Your task to perform on an android device: delete a single message in the gmail app Image 0: 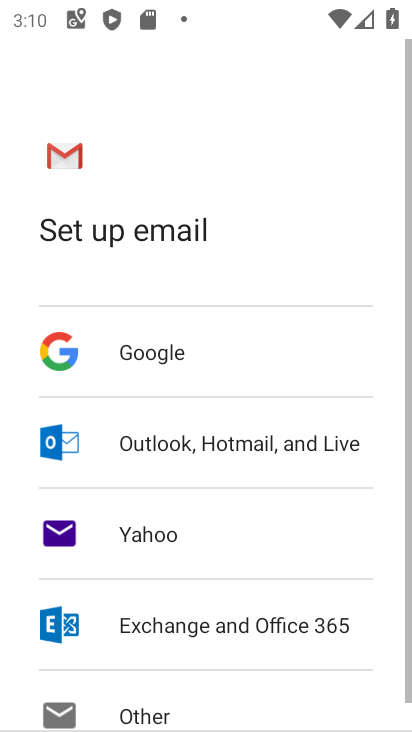
Step 0: press home button
Your task to perform on an android device: delete a single message in the gmail app Image 1: 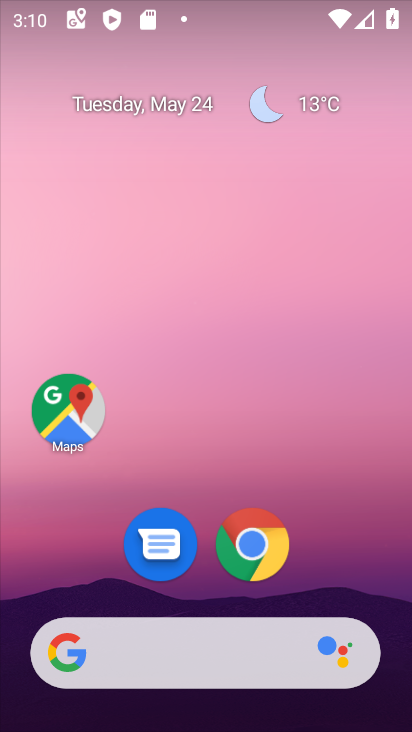
Step 1: drag from (384, 545) to (324, 1)
Your task to perform on an android device: delete a single message in the gmail app Image 2: 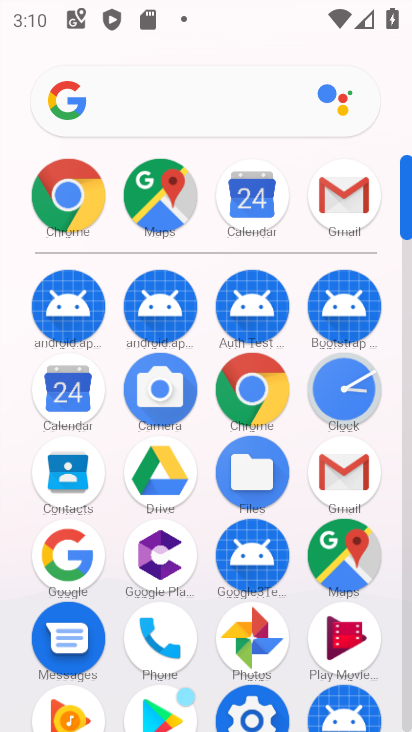
Step 2: click (353, 194)
Your task to perform on an android device: delete a single message in the gmail app Image 3: 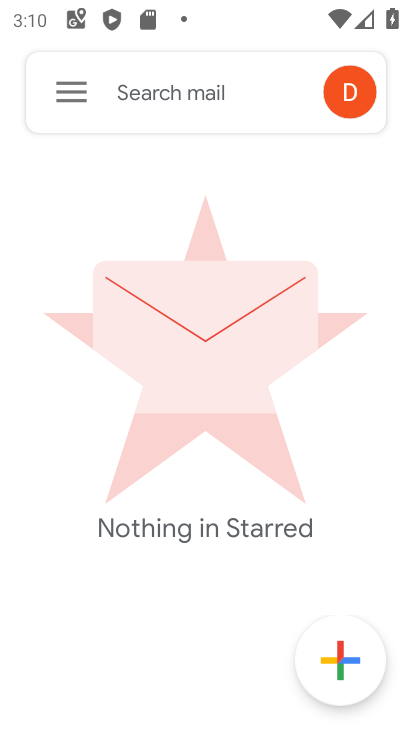
Step 3: click (62, 99)
Your task to perform on an android device: delete a single message in the gmail app Image 4: 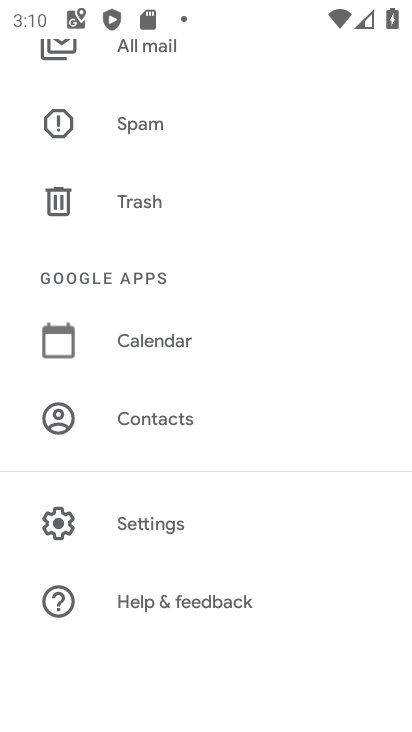
Step 4: drag from (160, 163) to (212, 504)
Your task to perform on an android device: delete a single message in the gmail app Image 5: 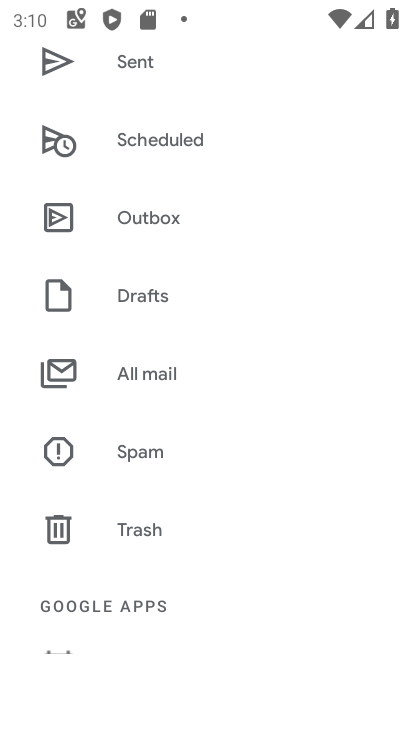
Step 5: drag from (107, 360) to (180, 698)
Your task to perform on an android device: delete a single message in the gmail app Image 6: 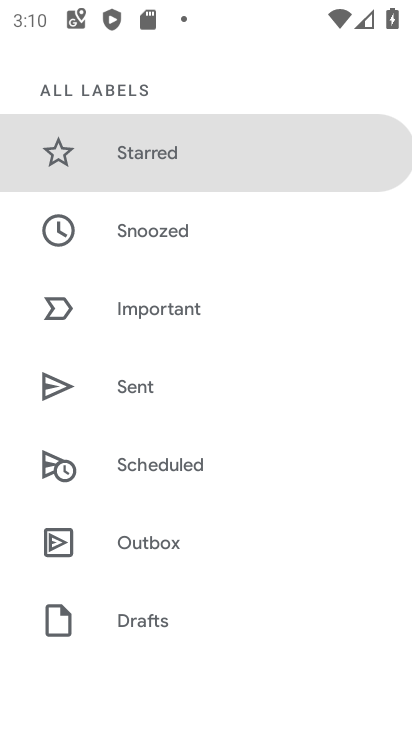
Step 6: drag from (195, 399) to (179, 726)
Your task to perform on an android device: delete a single message in the gmail app Image 7: 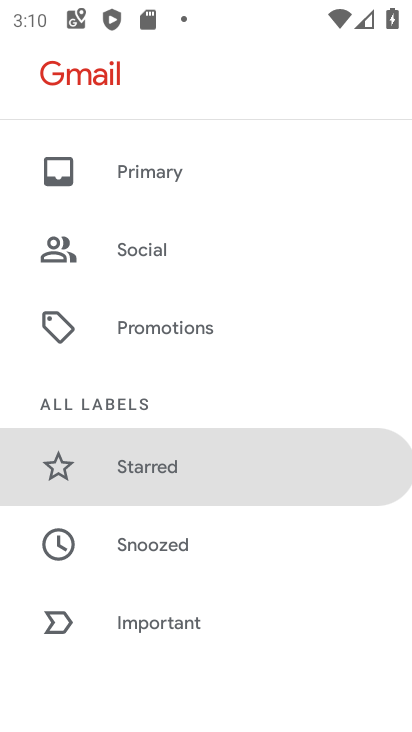
Step 7: drag from (183, 347) to (170, 680)
Your task to perform on an android device: delete a single message in the gmail app Image 8: 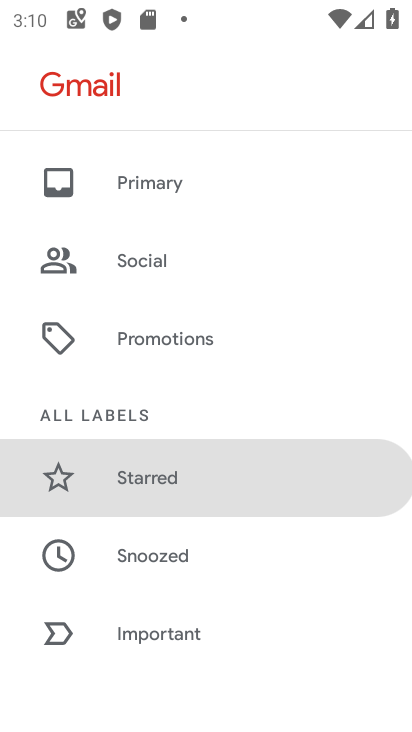
Step 8: drag from (169, 597) to (156, 255)
Your task to perform on an android device: delete a single message in the gmail app Image 9: 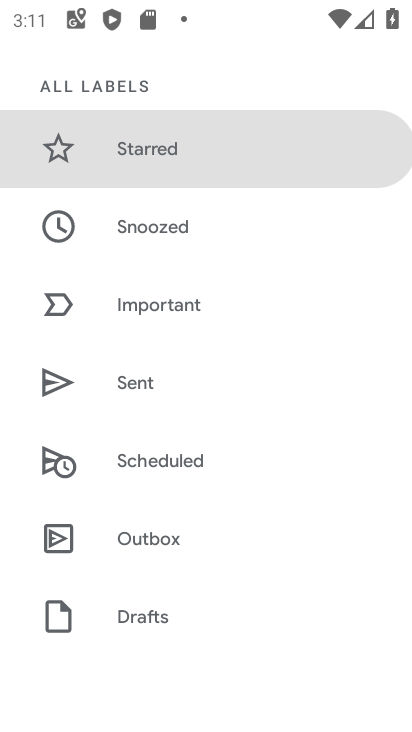
Step 9: drag from (221, 583) to (177, 159)
Your task to perform on an android device: delete a single message in the gmail app Image 10: 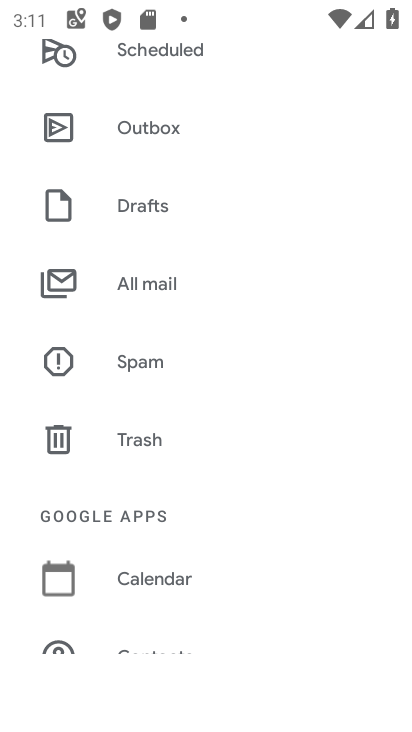
Step 10: drag from (204, 576) to (218, 135)
Your task to perform on an android device: delete a single message in the gmail app Image 11: 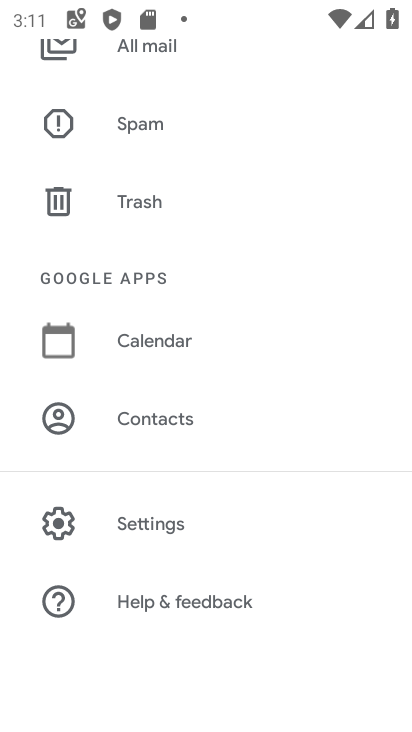
Step 11: drag from (281, 271) to (261, 589)
Your task to perform on an android device: delete a single message in the gmail app Image 12: 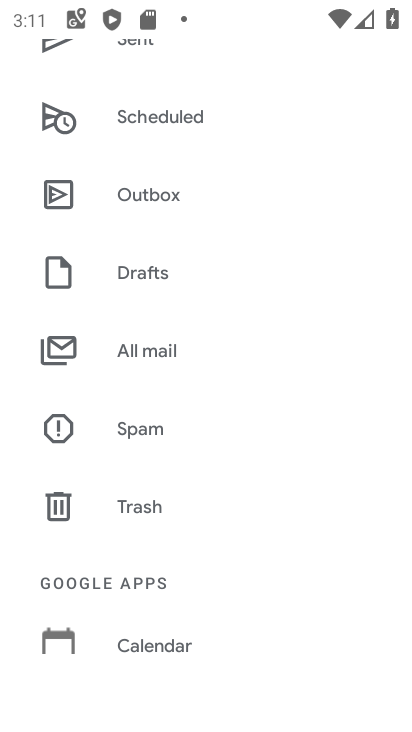
Step 12: drag from (227, 152) to (214, 575)
Your task to perform on an android device: delete a single message in the gmail app Image 13: 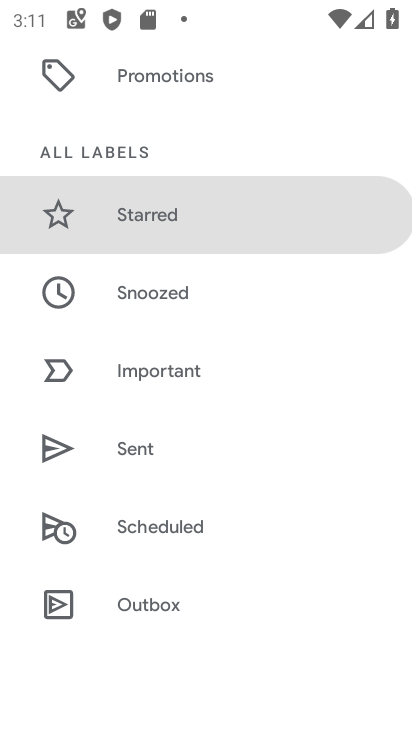
Step 13: drag from (212, 282) to (209, 617)
Your task to perform on an android device: delete a single message in the gmail app Image 14: 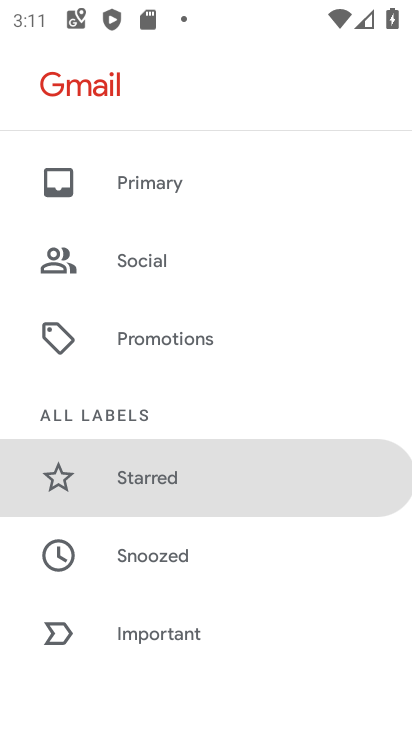
Step 14: drag from (233, 343) to (247, 646)
Your task to perform on an android device: delete a single message in the gmail app Image 15: 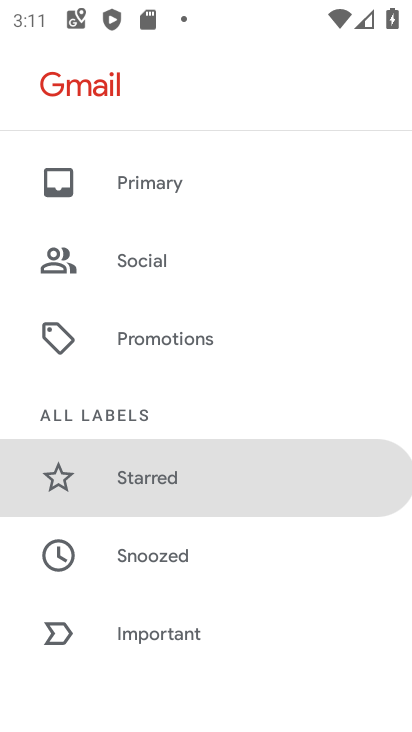
Step 15: drag from (243, 625) to (249, 198)
Your task to perform on an android device: delete a single message in the gmail app Image 16: 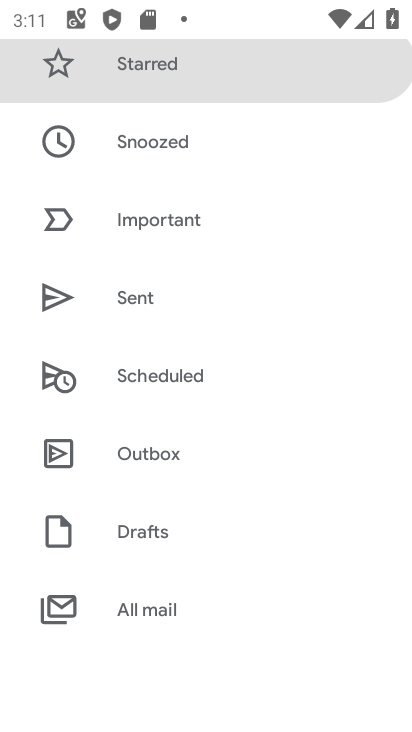
Step 16: drag from (235, 567) to (233, 187)
Your task to perform on an android device: delete a single message in the gmail app Image 17: 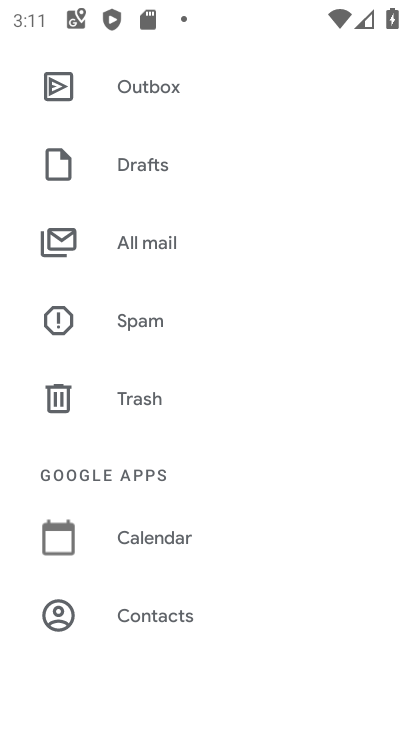
Step 17: drag from (194, 588) to (273, 91)
Your task to perform on an android device: delete a single message in the gmail app Image 18: 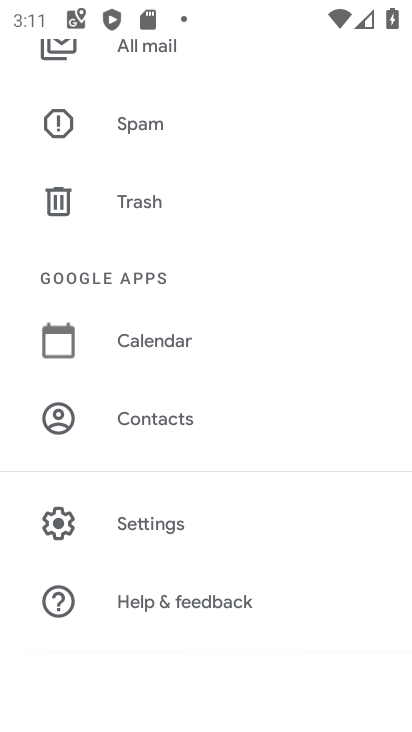
Step 18: drag from (261, 95) to (225, 455)
Your task to perform on an android device: delete a single message in the gmail app Image 19: 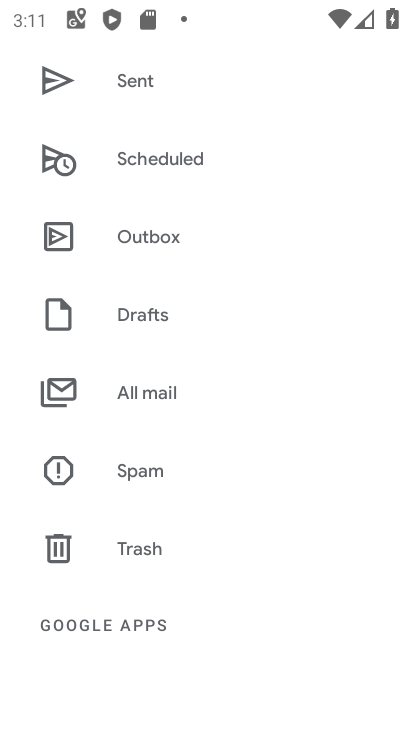
Step 19: click (141, 387)
Your task to perform on an android device: delete a single message in the gmail app Image 20: 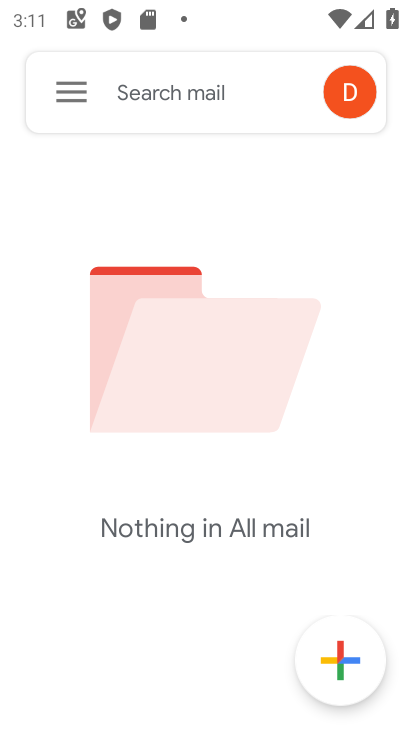
Step 20: task complete